Your task to perform on an android device: Clear all items from cart on costco. Search for "alienware aurora" on costco, select the first entry, and add it to the cart. Image 0: 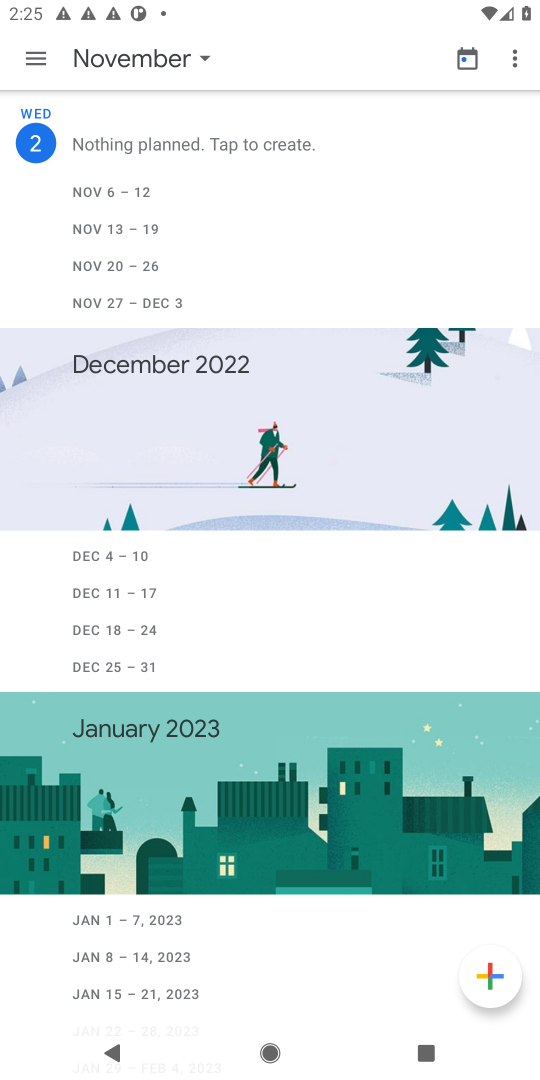
Step 0: click (191, 948)
Your task to perform on an android device: Clear all items from cart on costco. Search for "alienware aurora" on costco, select the first entry, and add it to the cart. Image 1: 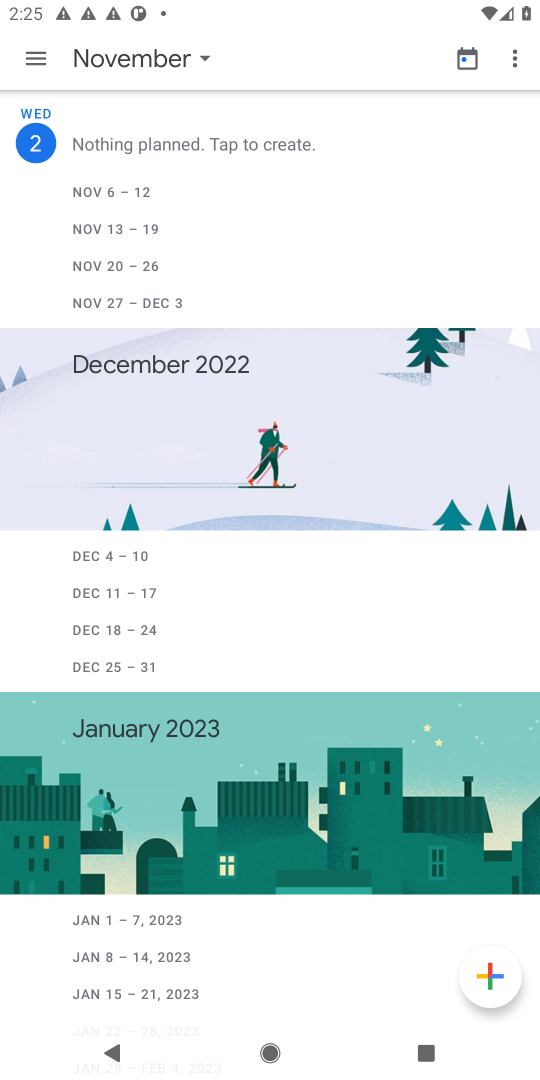
Step 1: press home button
Your task to perform on an android device: Clear all items from cart on costco. Search for "alienware aurora" on costco, select the first entry, and add it to the cart. Image 2: 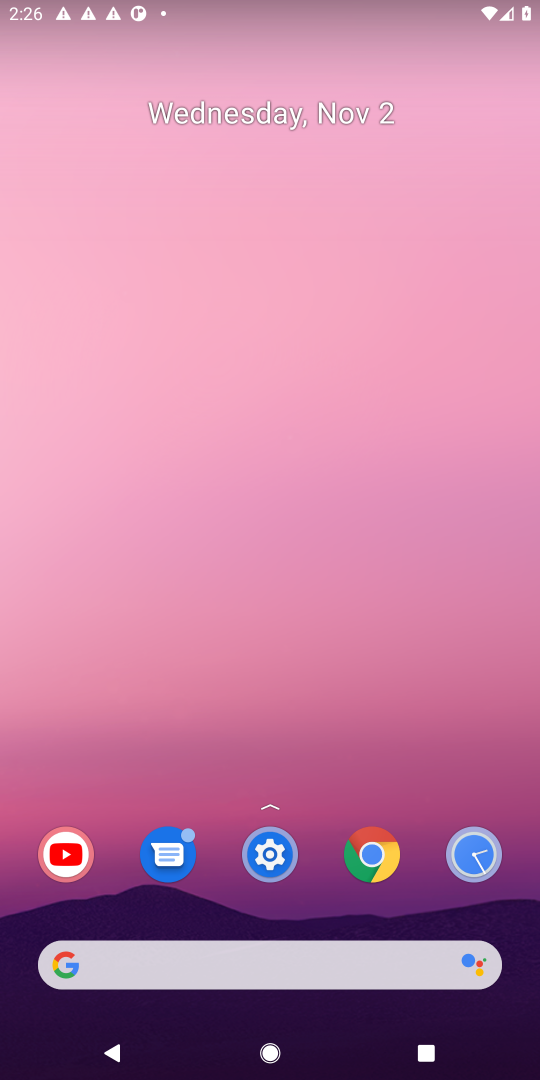
Step 2: click (351, 952)
Your task to perform on an android device: Clear all items from cart on costco. Search for "alienware aurora" on costco, select the first entry, and add it to the cart. Image 3: 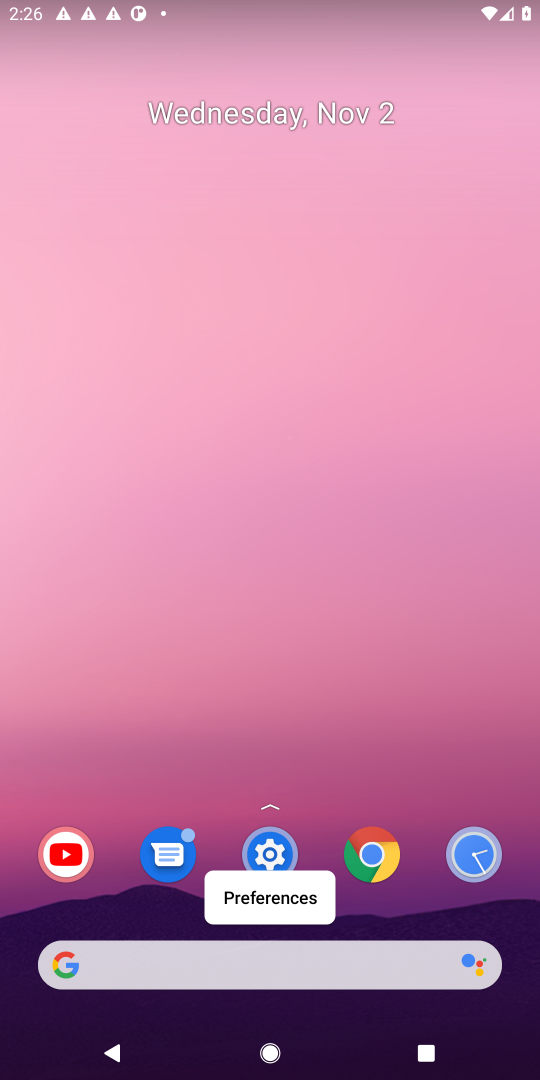
Step 3: click (335, 957)
Your task to perform on an android device: Clear all items from cart on costco. Search for "alienware aurora" on costco, select the first entry, and add it to the cart. Image 4: 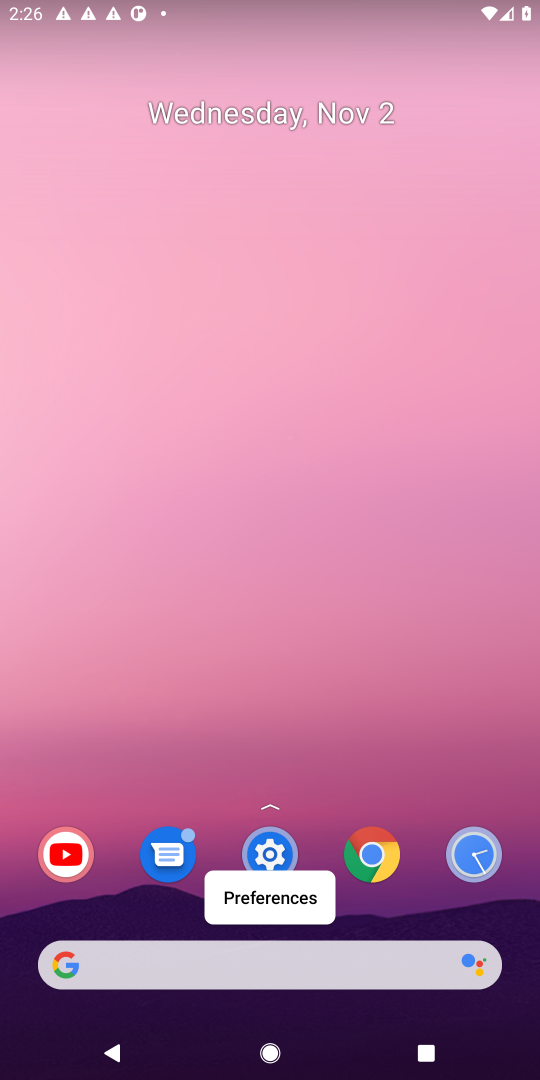
Step 4: click (335, 957)
Your task to perform on an android device: Clear all items from cart on costco. Search for "alienware aurora" on costco, select the first entry, and add it to the cart. Image 5: 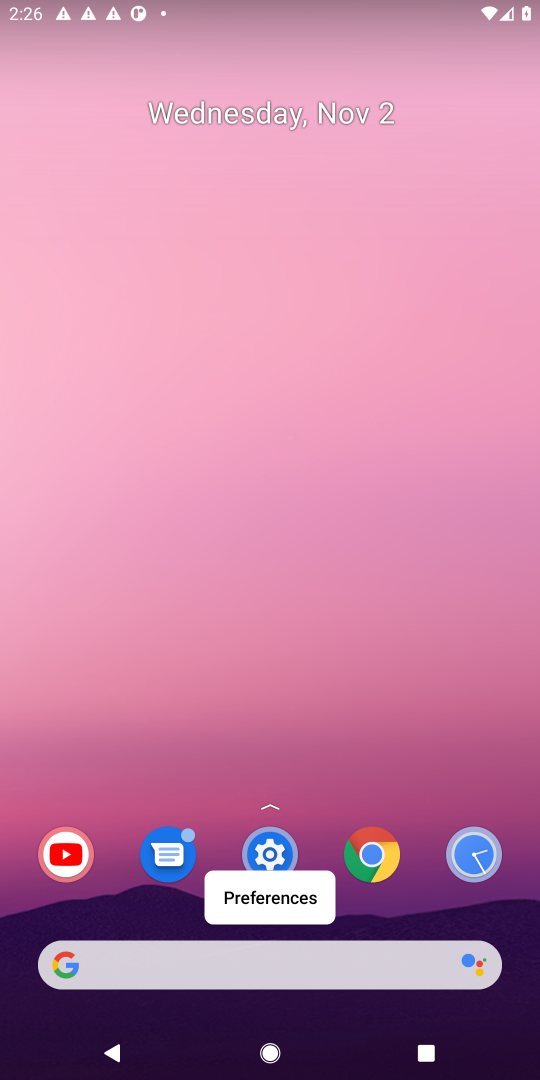
Step 5: click (335, 957)
Your task to perform on an android device: Clear all items from cart on costco. Search for "alienware aurora" on costco, select the first entry, and add it to the cart. Image 6: 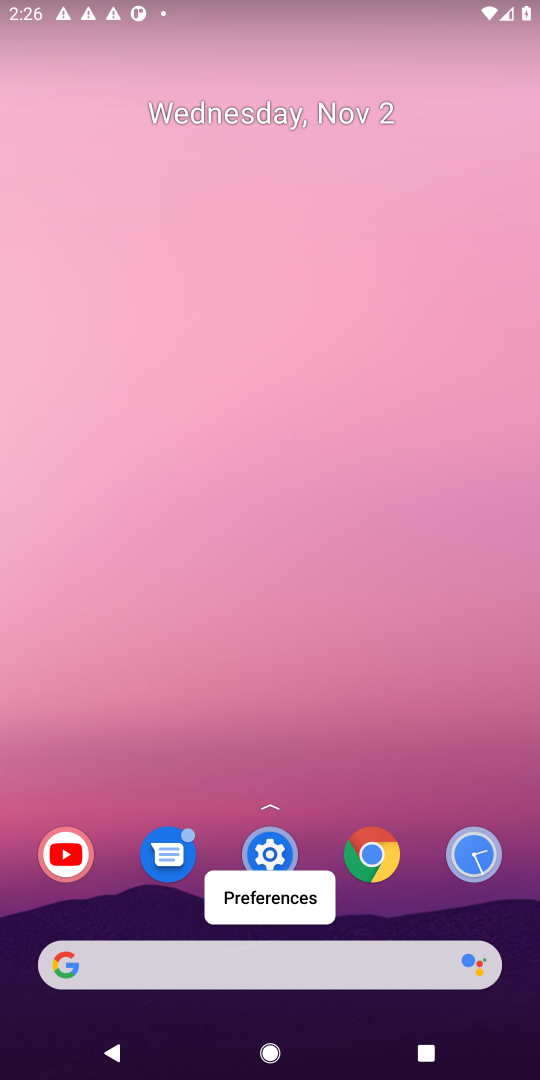
Step 6: click (335, 957)
Your task to perform on an android device: Clear all items from cart on costco. Search for "alienware aurora" on costco, select the first entry, and add it to the cart. Image 7: 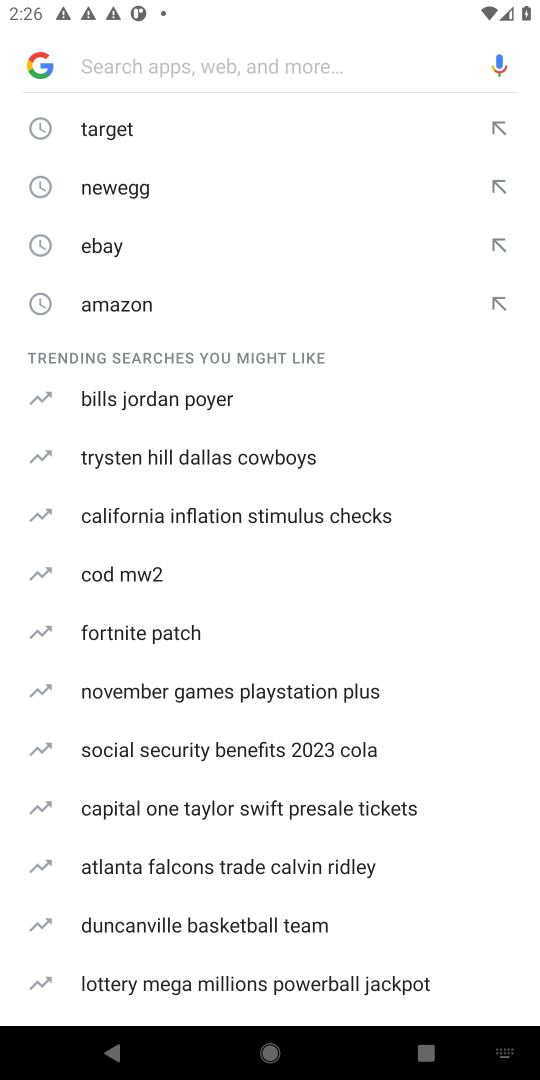
Step 7: type "costco"
Your task to perform on an android device: Clear all items from cart on costco. Search for "alienware aurora" on costco, select the first entry, and add it to the cart. Image 8: 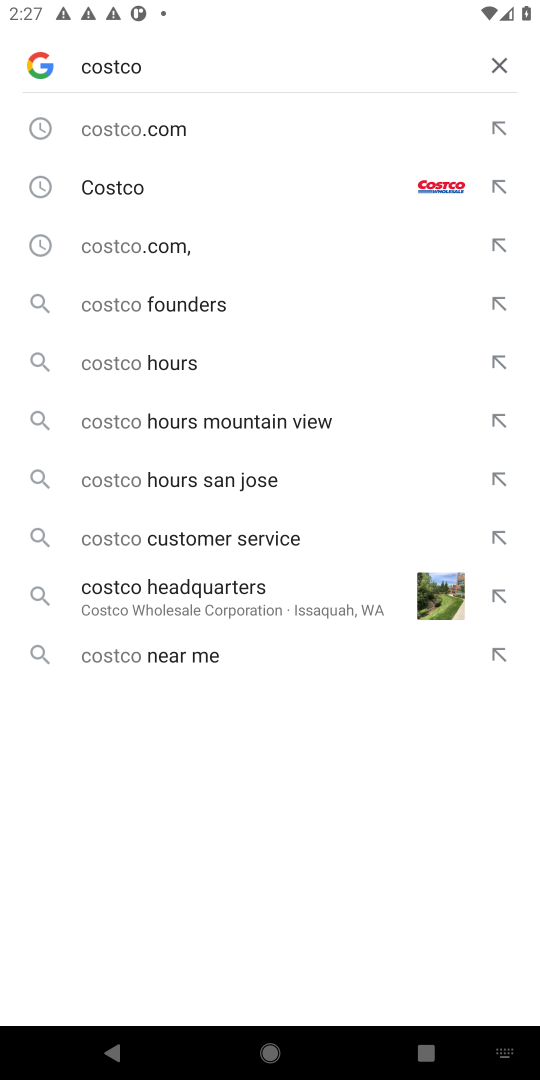
Step 8: press enter
Your task to perform on an android device: Clear all items from cart on costco. Search for "alienware aurora" on costco, select the first entry, and add it to the cart. Image 9: 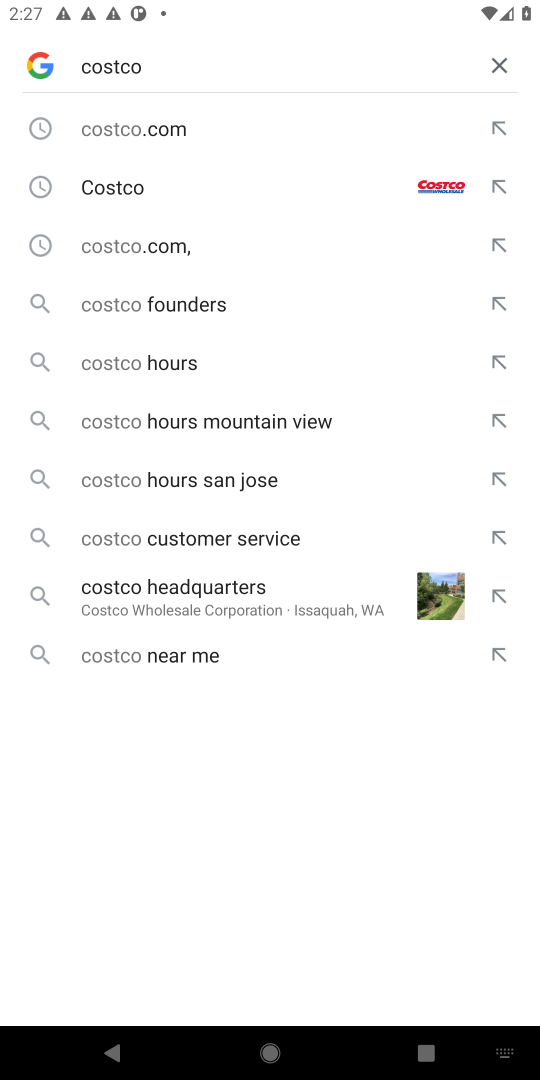
Step 9: type ""
Your task to perform on an android device: Clear all items from cart on costco. Search for "alienware aurora" on costco, select the first entry, and add it to the cart. Image 10: 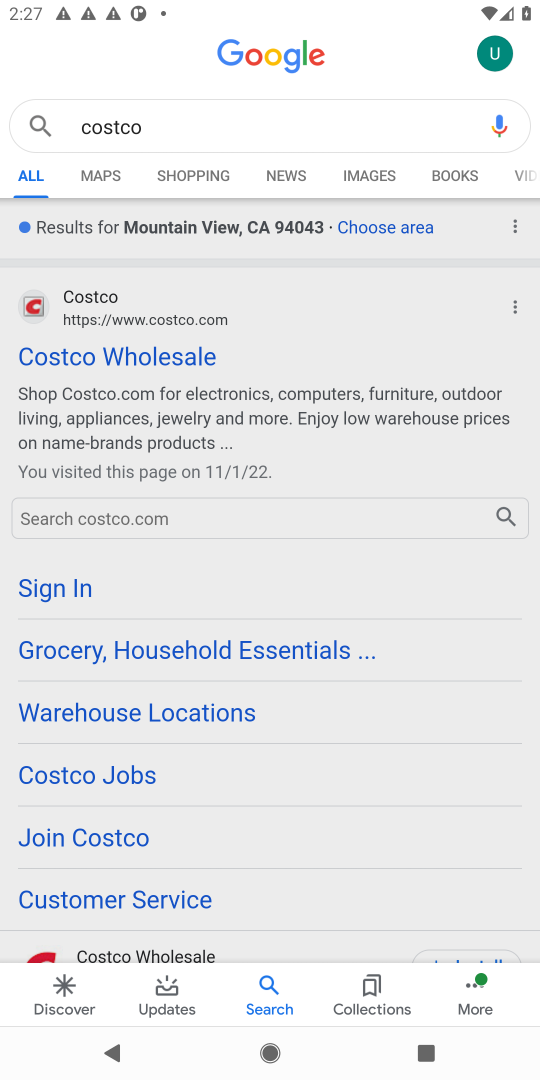
Step 10: click (129, 363)
Your task to perform on an android device: Clear all items from cart on costco. Search for "alienware aurora" on costco, select the first entry, and add it to the cart. Image 11: 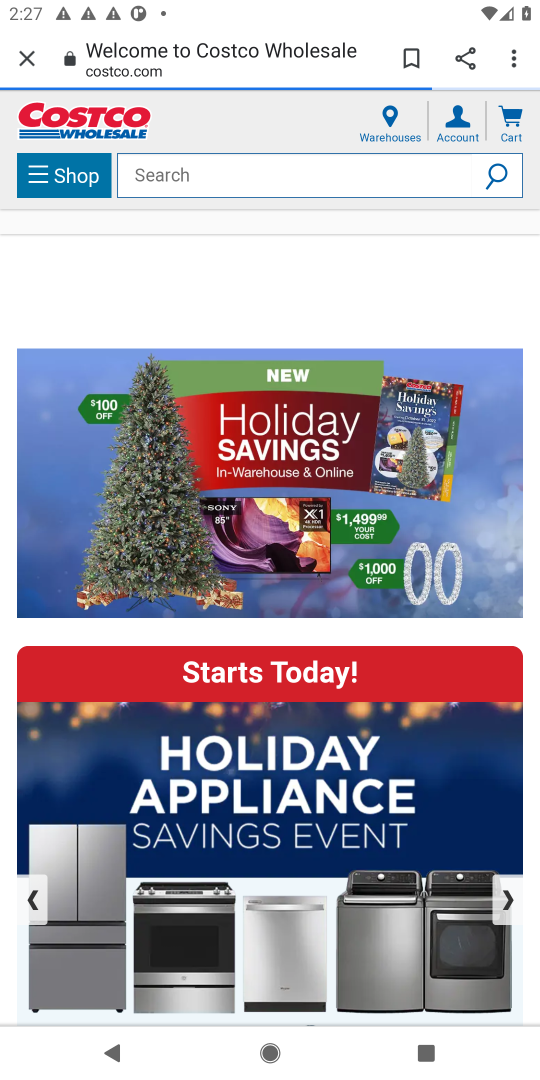
Step 11: click (199, 178)
Your task to perform on an android device: Clear all items from cart on costco. Search for "alienware aurora" on costco, select the first entry, and add it to the cart. Image 12: 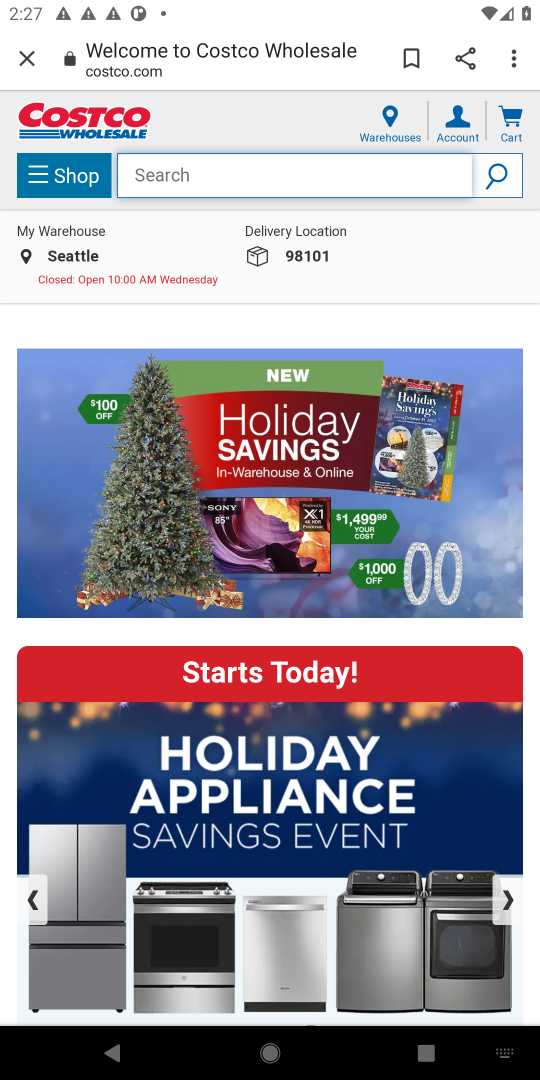
Step 12: type "alienware aurora"
Your task to perform on an android device: Clear all items from cart on costco. Search for "alienware aurora" on costco, select the first entry, and add it to the cart. Image 13: 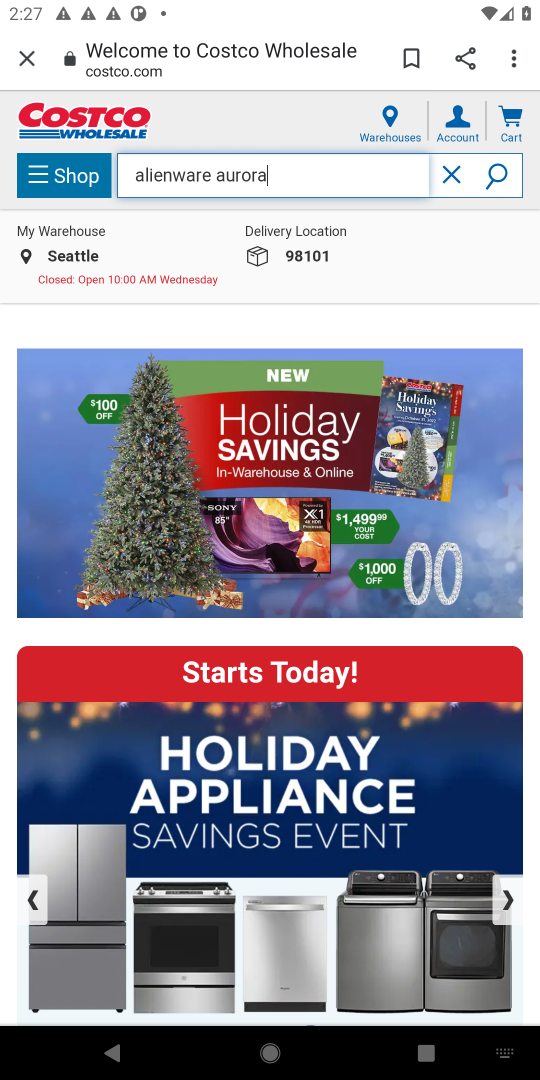
Step 13: type ""
Your task to perform on an android device: Clear all items from cart on costco. Search for "alienware aurora" on costco, select the first entry, and add it to the cart. Image 14: 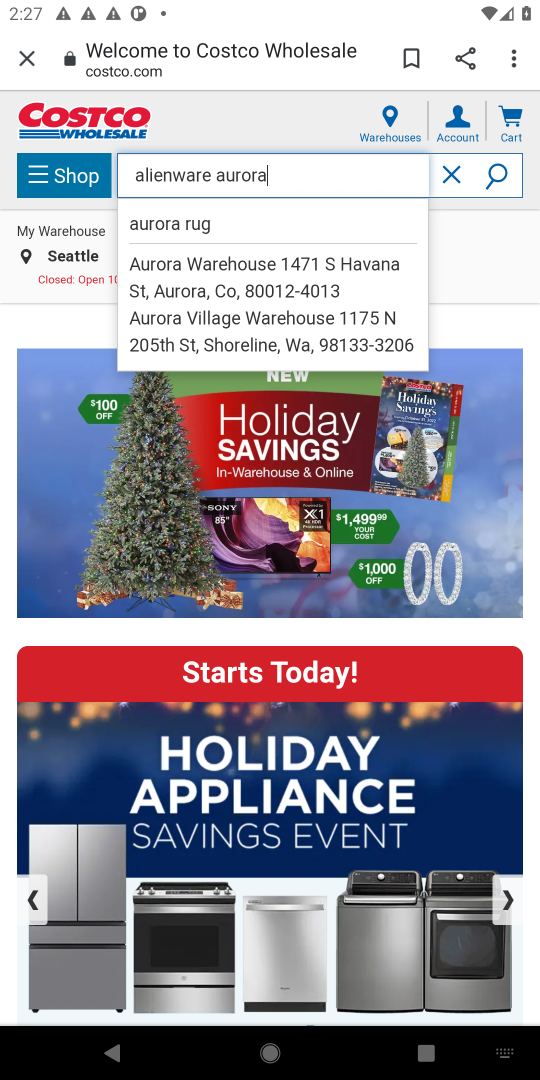
Step 14: press enter
Your task to perform on an android device: Clear all items from cart on costco. Search for "alienware aurora" on costco, select the first entry, and add it to the cart. Image 15: 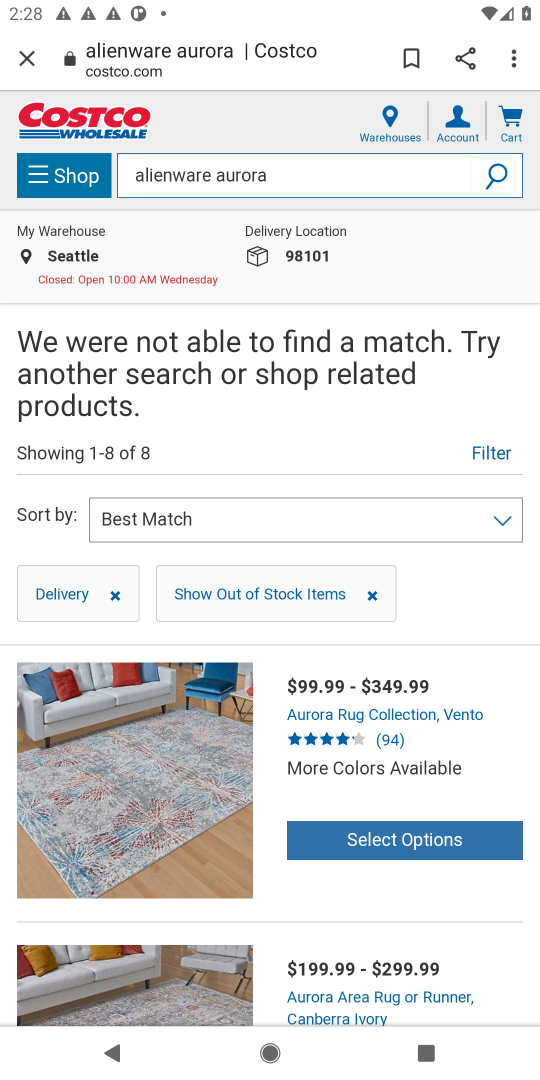
Step 15: click (322, 698)
Your task to perform on an android device: Clear all items from cart on costco. Search for "alienware aurora" on costco, select the first entry, and add it to the cart. Image 16: 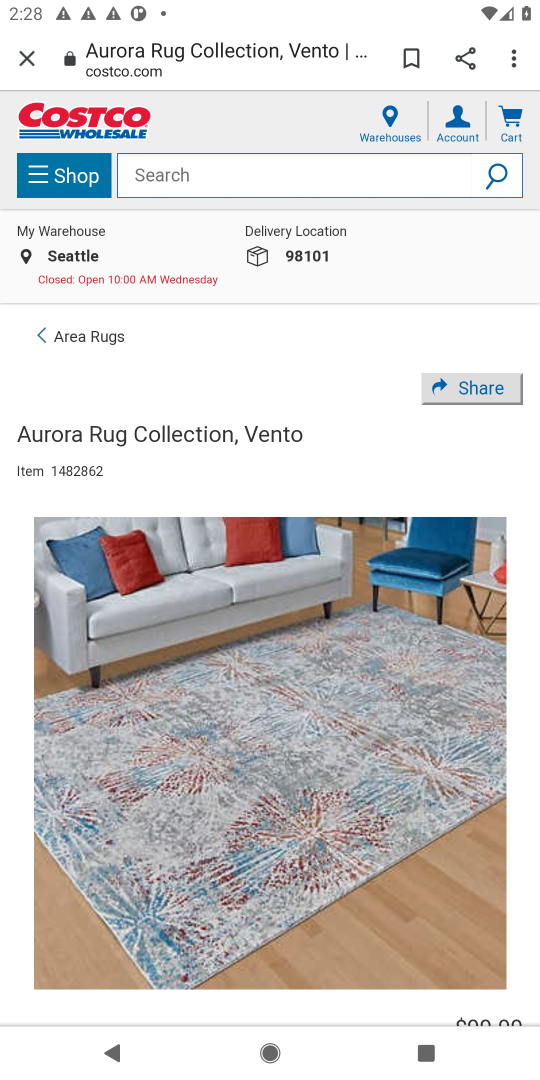
Step 16: drag from (367, 462) to (347, 317)
Your task to perform on an android device: Clear all items from cart on costco. Search for "alienware aurora" on costco, select the first entry, and add it to the cart. Image 17: 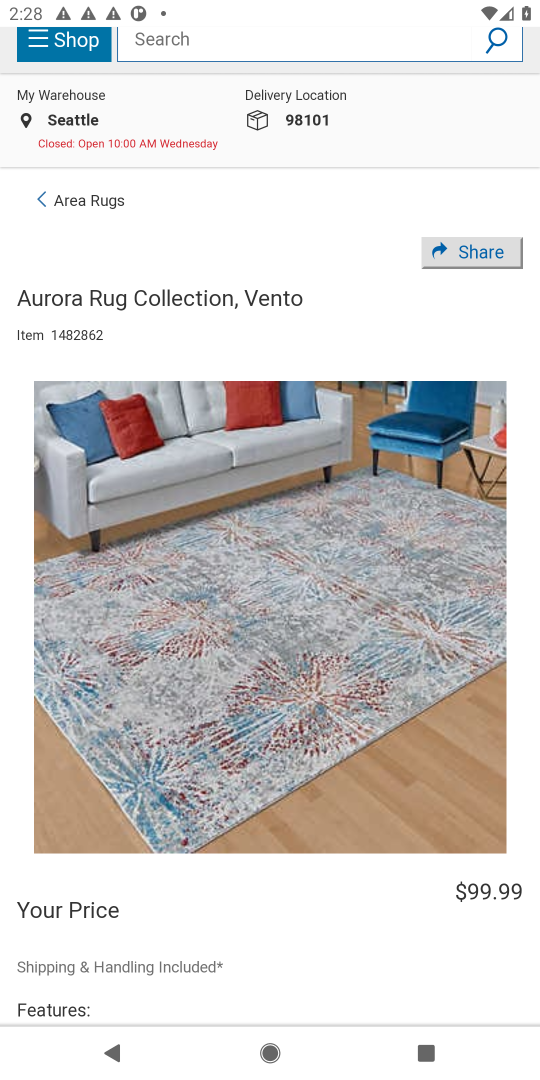
Step 17: drag from (369, 947) to (294, 133)
Your task to perform on an android device: Clear all items from cart on costco. Search for "alienware aurora" on costco, select the first entry, and add it to the cart. Image 18: 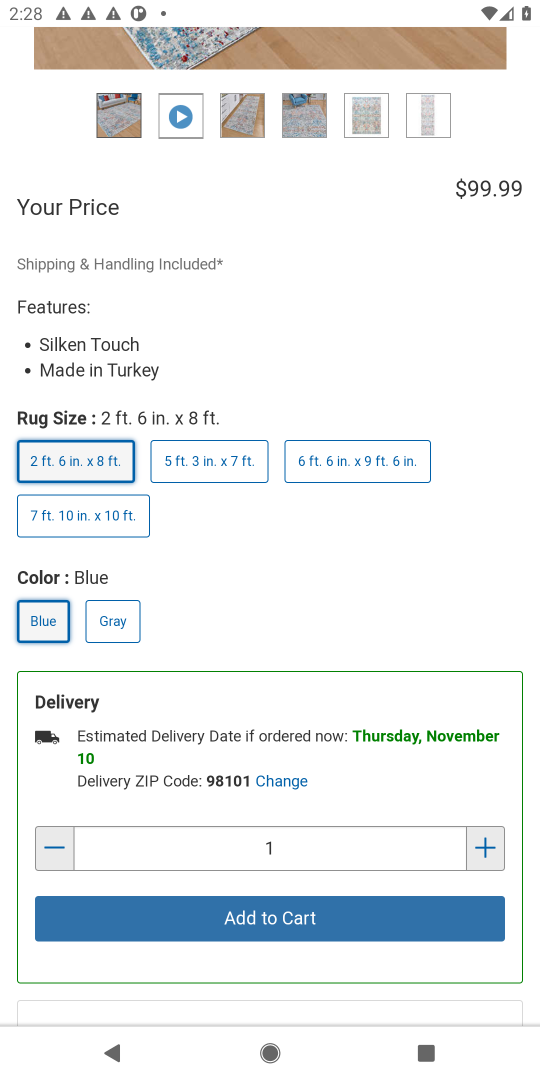
Step 18: click (271, 932)
Your task to perform on an android device: Clear all items from cart on costco. Search for "alienware aurora" on costco, select the first entry, and add it to the cart. Image 19: 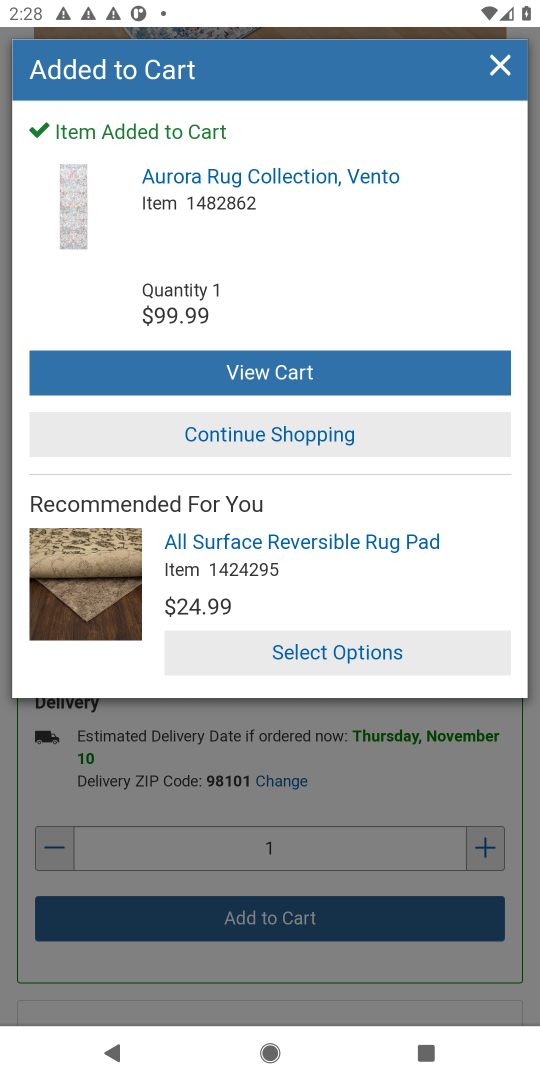
Step 19: click (306, 382)
Your task to perform on an android device: Clear all items from cart on costco. Search for "alienware aurora" on costco, select the first entry, and add it to the cart. Image 20: 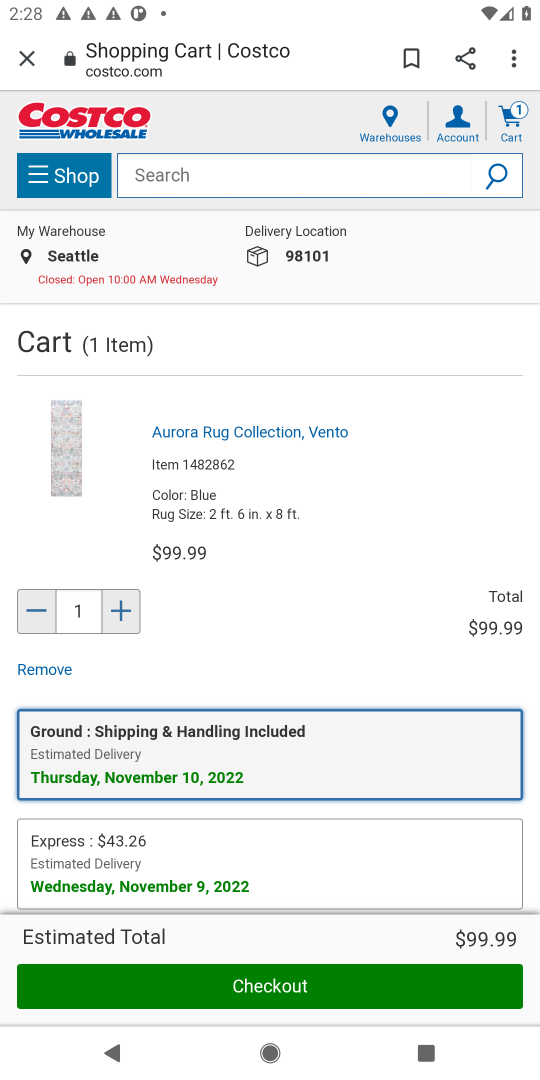
Step 20: task complete